Your task to perform on an android device: see sites visited before in the chrome app Image 0: 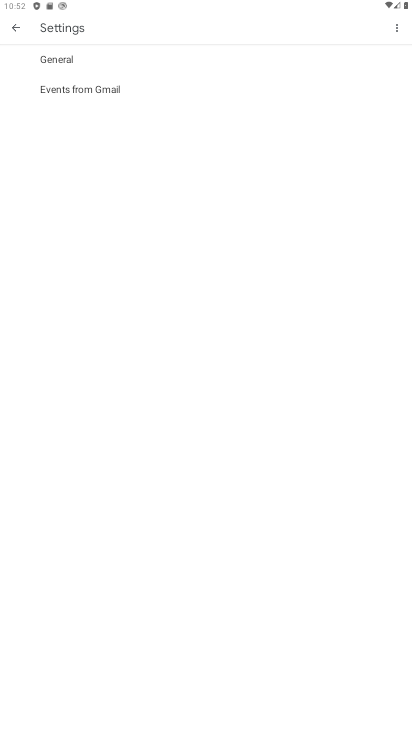
Step 0: press home button
Your task to perform on an android device: see sites visited before in the chrome app Image 1: 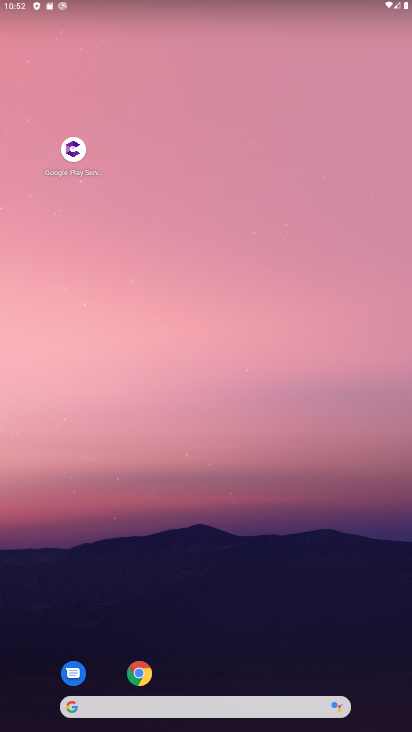
Step 1: click (143, 678)
Your task to perform on an android device: see sites visited before in the chrome app Image 2: 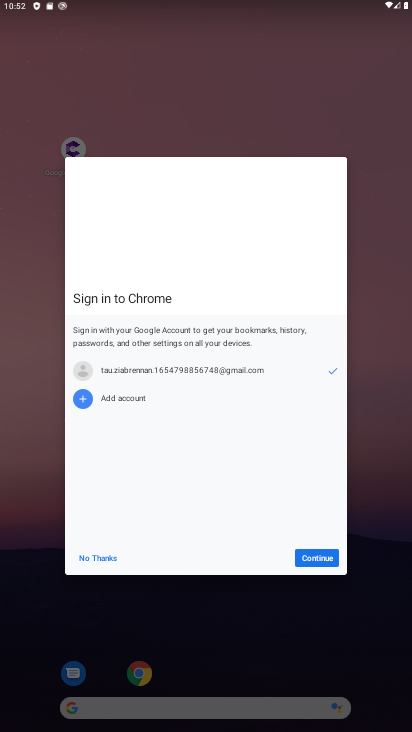
Step 2: click (297, 552)
Your task to perform on an android device: see sites visited before in the chrome app Image 3: 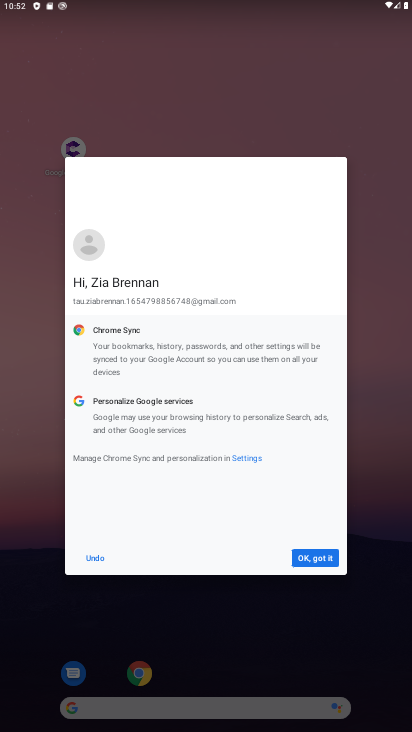
Step 3: click (297, 552)
Your task to perform on an android device: see sites visited before in the chrome app Image 4: 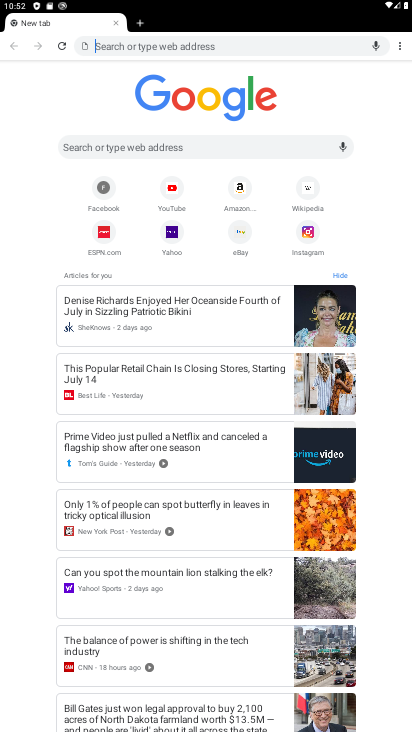
Step 4: click (396, 49)
Your task to perform on an android device: see sites visited before in the chrome app Image 5: 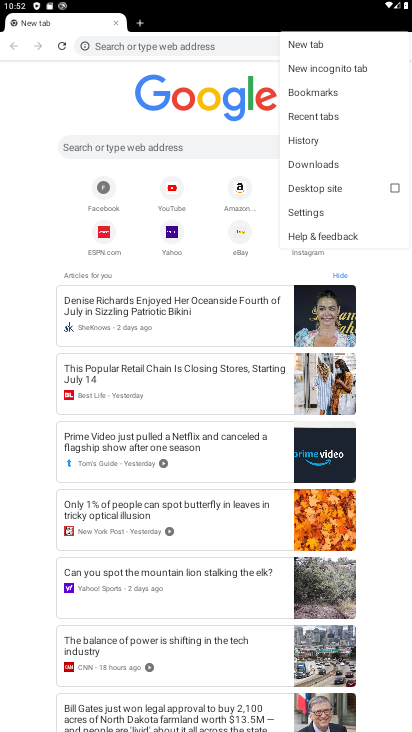
Step 5: click (343, 116)
Your task to perform on an android device: see sites visited before in the chrome app Image 6: 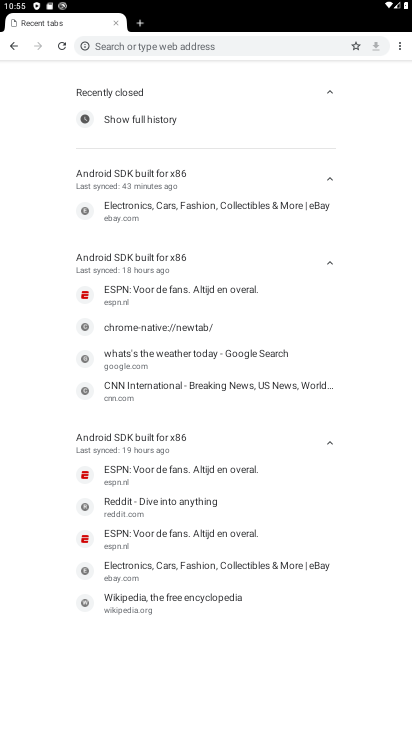
Step 6: task complete